Your task to perform on an android device: Go to display settings Image 0: 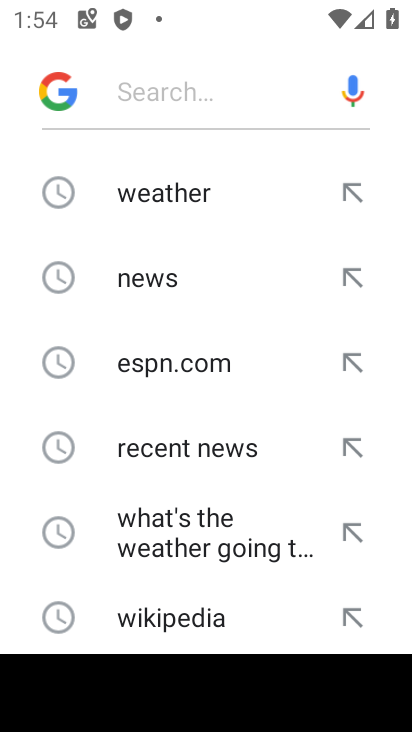
Step 0: press home button
Your task to perform on an android device: Go to display settings Image 1: 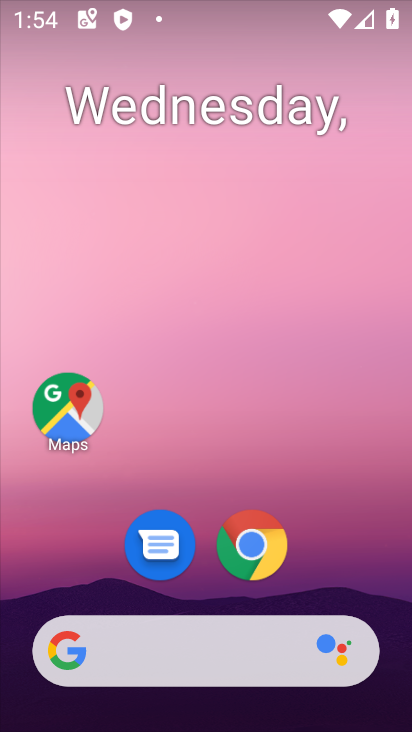
Step 1: drag from (302, 567) to (275, 186)
Your task to perform on an android device: Go to display settings Image 2: 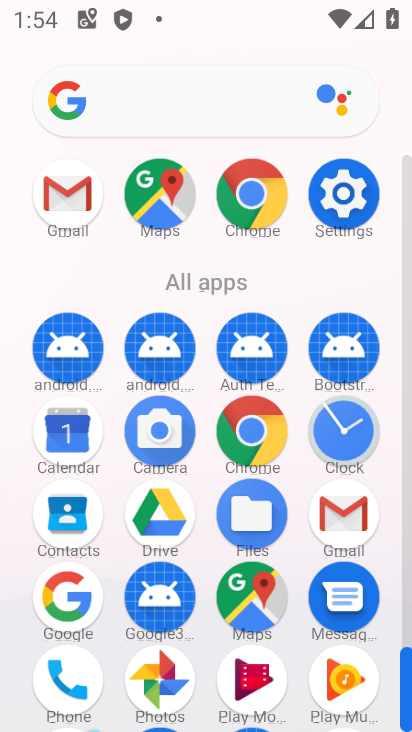
Step 2: click (339, 195)
Your task to perform on an android device: Go to display settings Image 3: 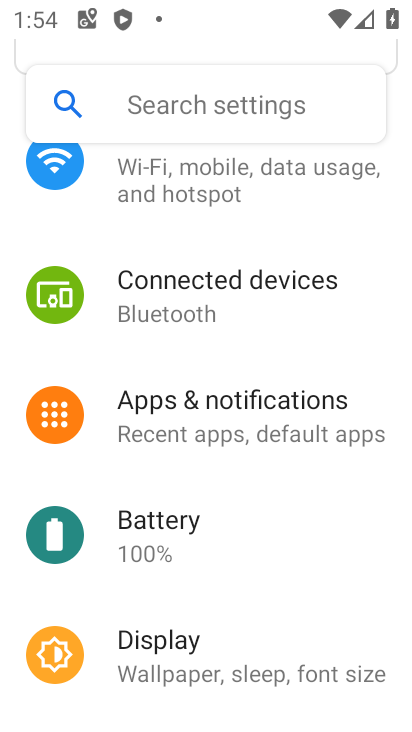
Step 3: click (192, 672)
Your task to perform on an android device: Go to display settings Image 4: 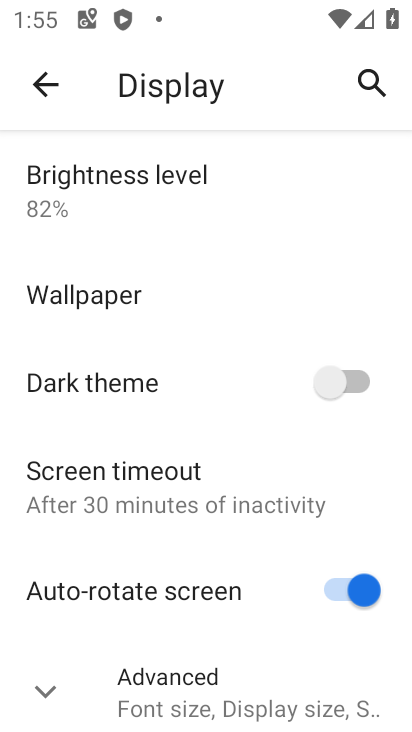
Step 4: task complete